Your task to perform on an android device: turn on showing notifications on the lock screen Image 0: 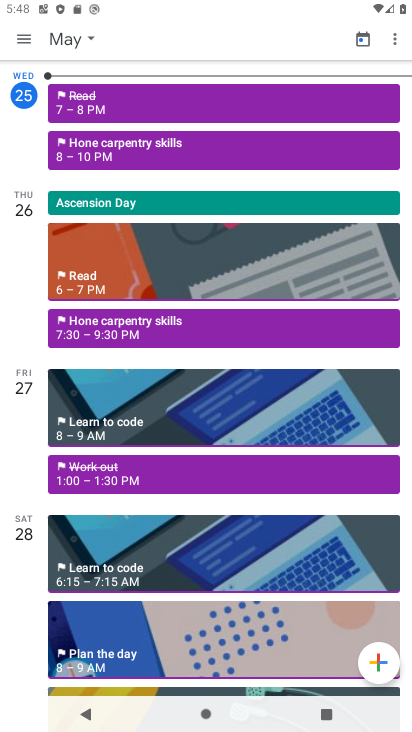
Step 0: press home button
Your task to perform on an android device: turn on showing notifications on the lock screen Image 1: 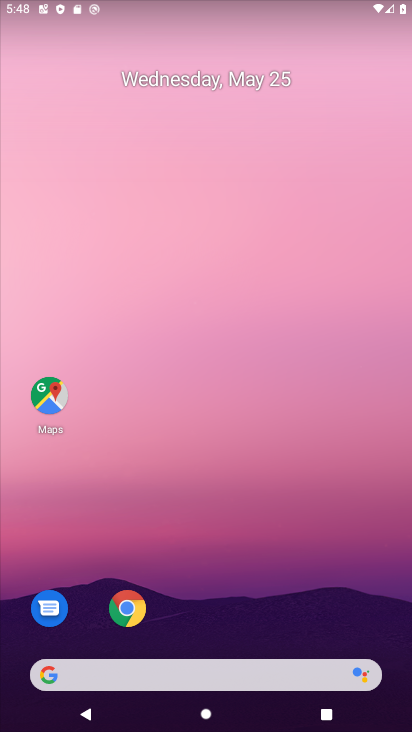
Step 1: drag from (188, 622) to (257, 102)
Your task to perform on an android device: turn on showing notifications on the lock screen Image 2: 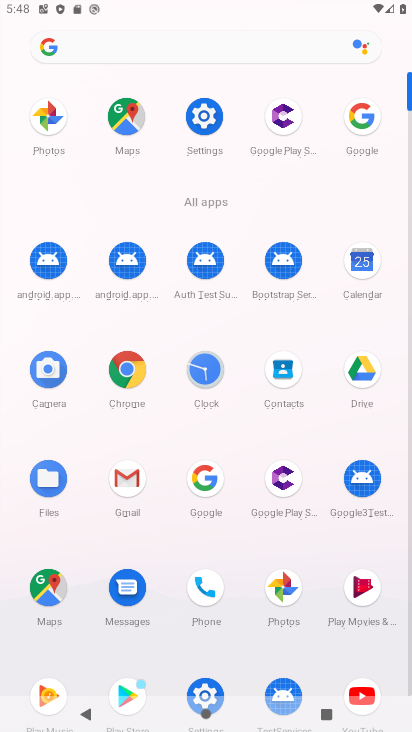
Step 2: click (193, 120)
Your task to perform on an android device: turn on showing notifications on the lock screen Image 3: 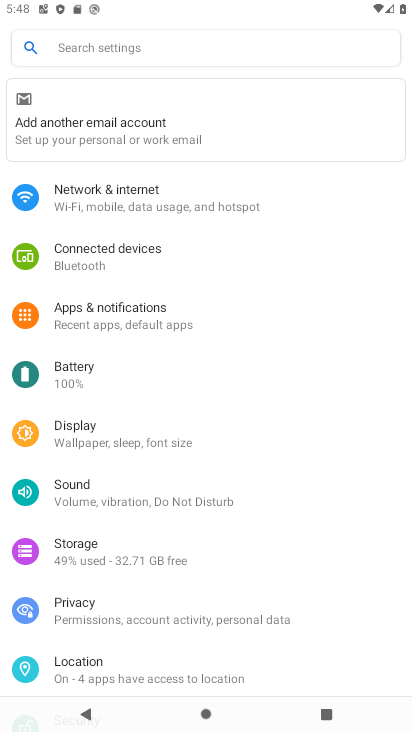
Step 3: click (97, 322)
Your task to perform on an android device: turn on showing notifications on the lock screen Image 4: 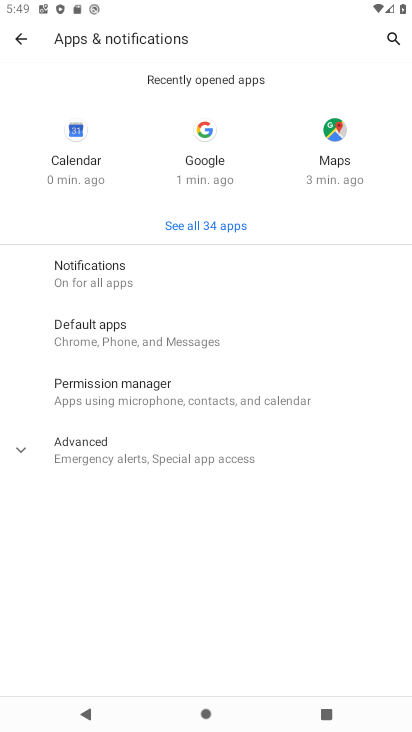
Step 4: click (110, 280)
Your task to perform on an android device: turn on showing notifications on the lock screen Image 5: 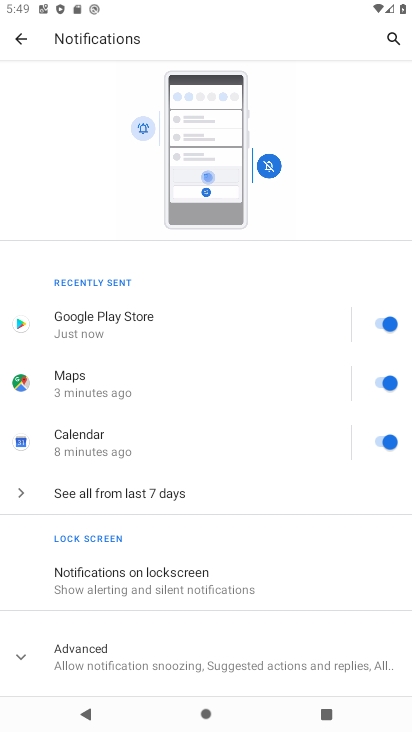
Step 5: click (113, 586)
Your task to perform on an android device: turn on showing notifications on the lock screen Image 6: 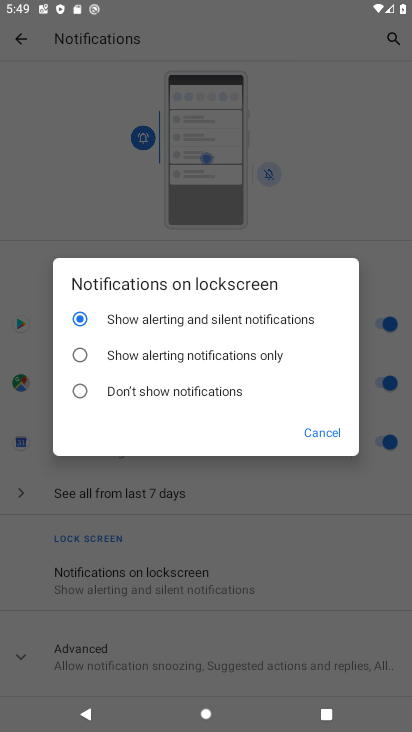
Step 6: task complete